Your task to perform on an android device: turn off translation in the chrome app Image 0: 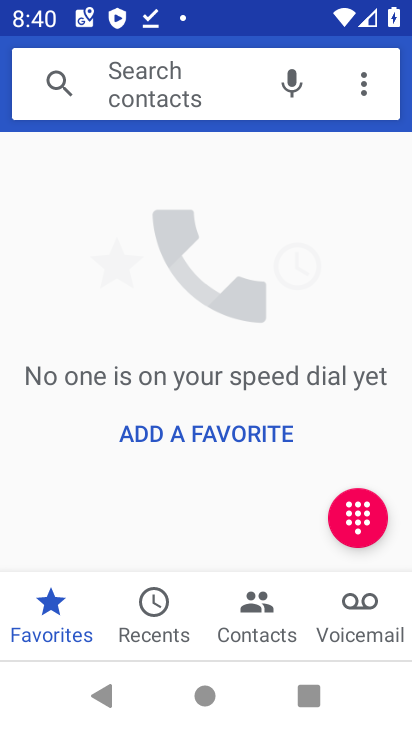
Step 0: press back button
Your task to perform on an android device: turn off translation in the chrome app Image 1: 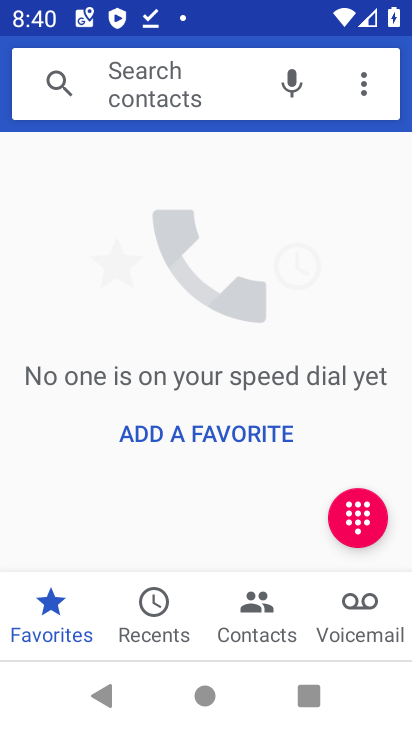
Step 1: press back button
Your task to perform on an android device: turn off translation in the chrome app Image 2: 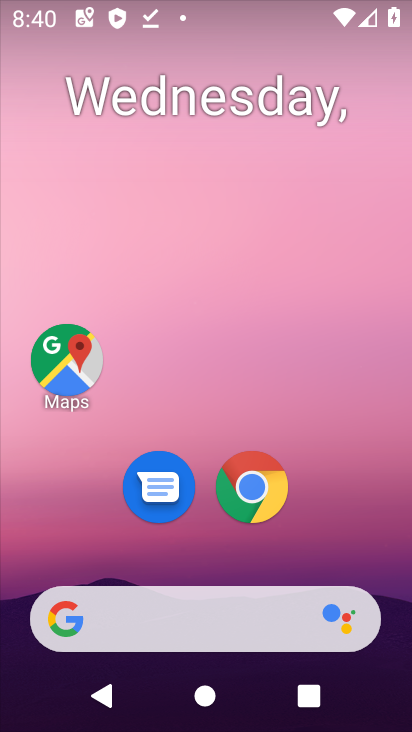
Step 2: drag from (263, 683) to (158, 45)
Your task to perform on an android device: turn off translation in the chrome app Image 3: 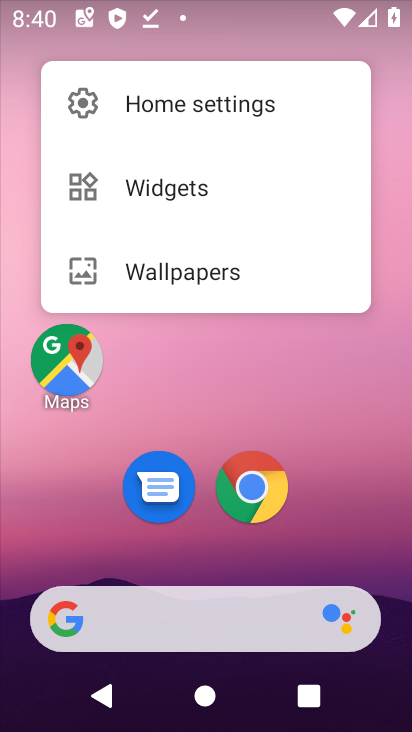
Step 3: click (231, 317)
Your task to perform on an android device: turn off translation in the chrome app Image 4: 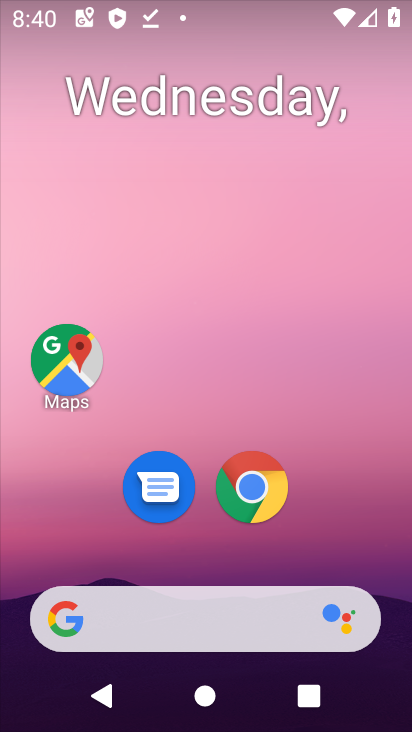
Step 4: click (238, 331)
Your task to perform on an android device: turn off translation in the chrome app Image 5: 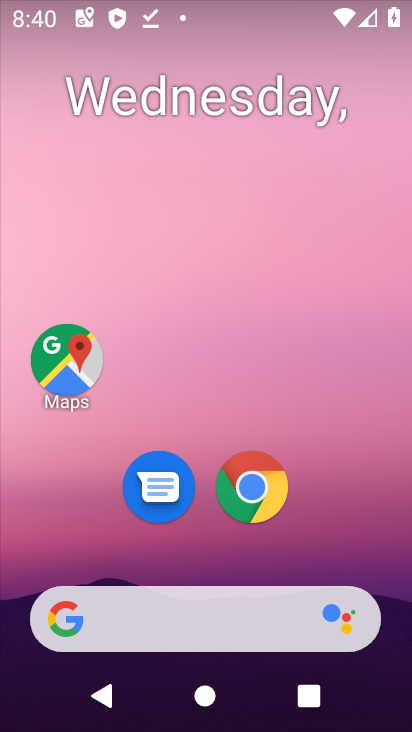
Step 5: drag from (253, 675) to (148, 125)
Your task to perform on an android device: turn off translation in the chrome app Image 6: 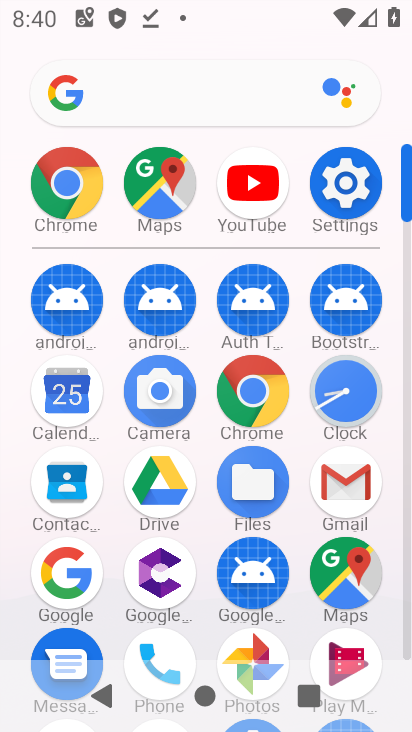
Step 6: click (238, 390)
Your task to perform on an android device: turn off translation in the chrome app Image 7: 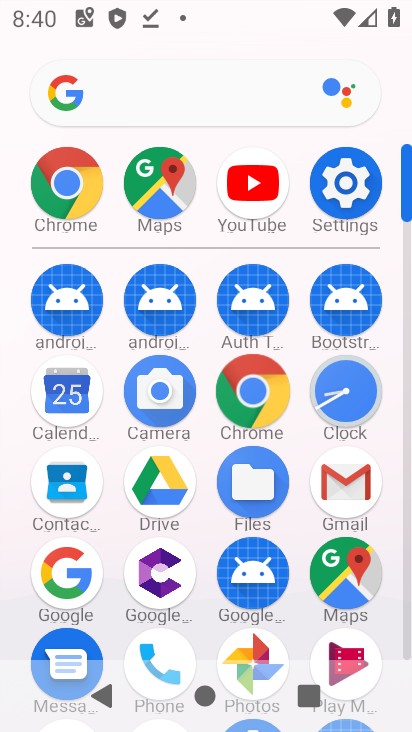
Step 7: click (238, 390)
Your task to perform on an android device: turn off translation in the chrome app Image 8: 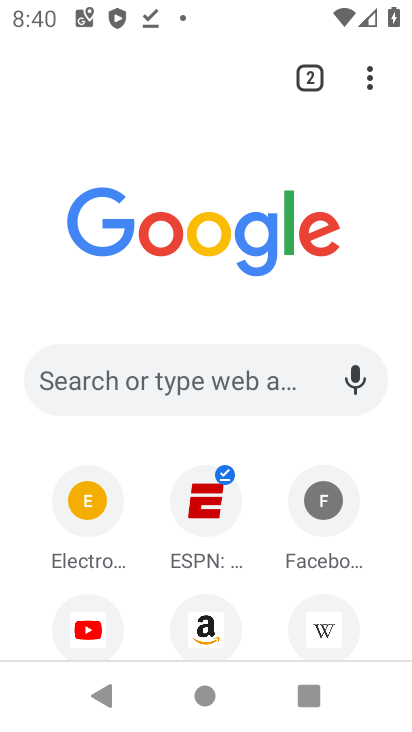
Step 8: drag from (362, 86) to (98, 543)
Your task to perform on an android device: turn off translation in the chrome app Image 9: 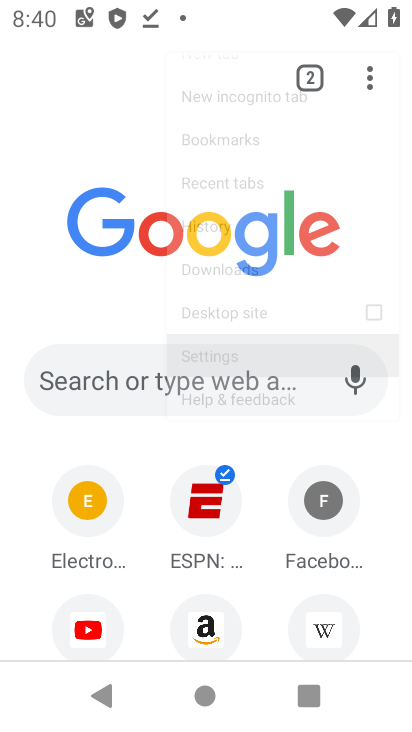
Step 9: click (106, 539)
Your task to perform on an android device: turn off translation in the chrome app Image 10: 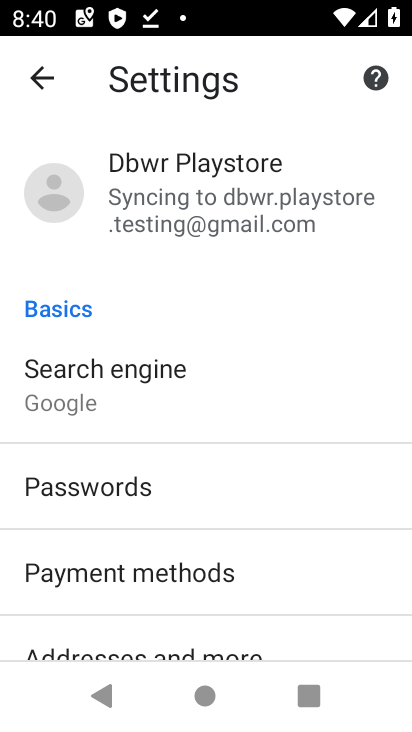
Step 10: drag from (100, 546) to (69, 189)
Your task to perform on an android device: turn off translation in the chrome app Image 11: 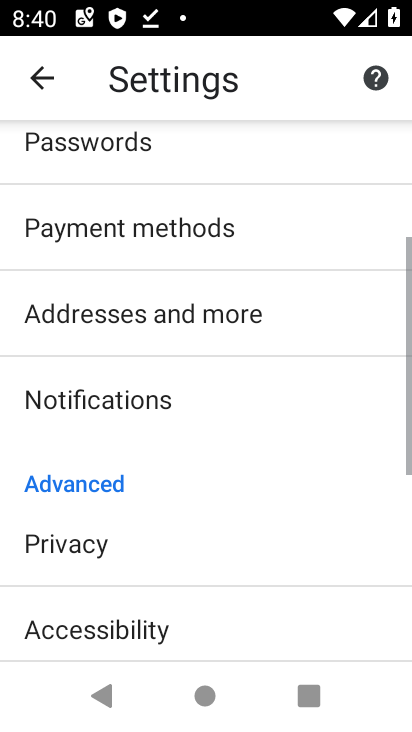
Step 11: drag from (135, 523) to (93, 225)
Your task to perform on an android device: turn off translation in the chrome app Image 12: 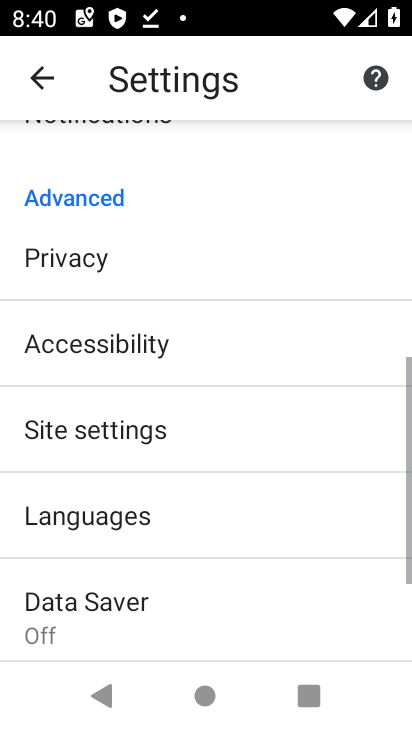
Step 12: drag from (175, 571) to (183, 233)
Your task to perform on an android device: turn off translation in the chrome app Image 13: 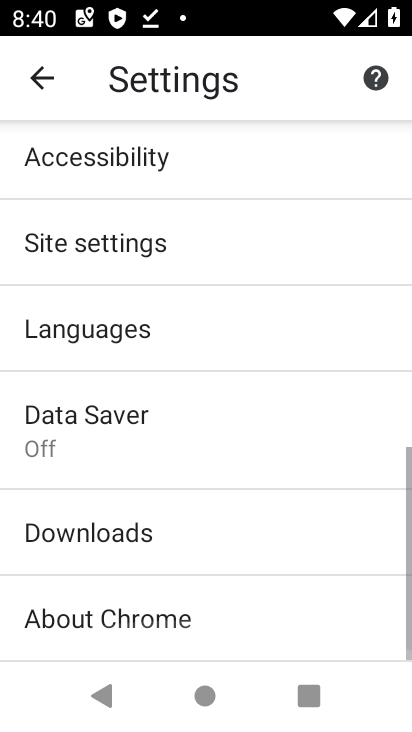
Step 13: drag from (249, 479) to (249, 198)
Your task to perform on an android device: turn off translation in the chrome app Image 14: 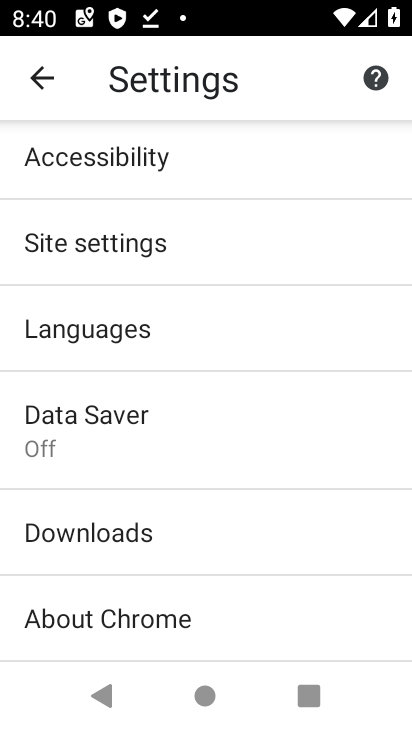
Step 14: click (85, 319)
Your task to perform on an android device: turn off translation in the chrome app Image 15: 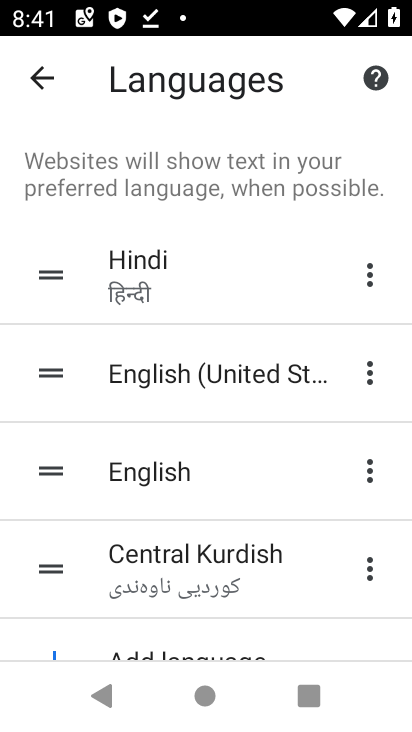
Step 15: task complete